Your task to perform on an android device: Open Chrome and go to settings Image 0: 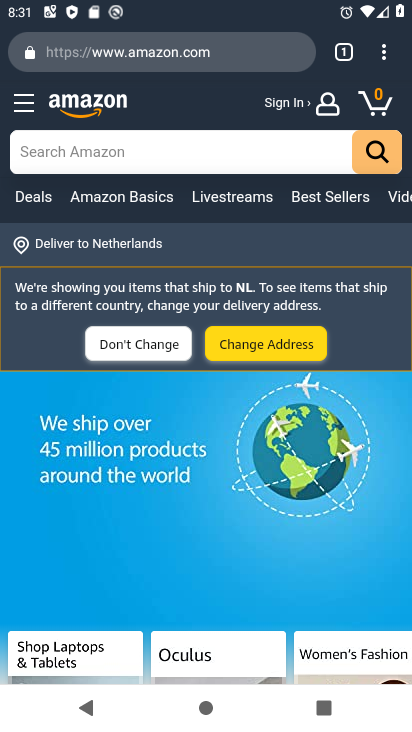
Step 0: press home button
Your task to perform on an android device: Open Chrome and go to settings Image 1: 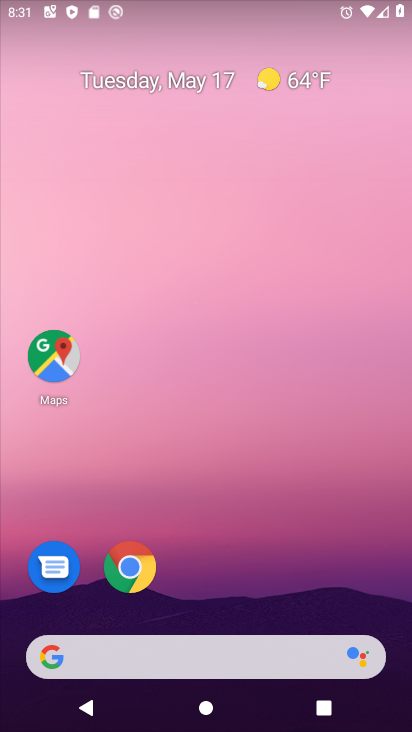
Step 1: drag from (370, 597) to (342, 112)
Your task to perform on an android device: Open Chrome and go to settings Image 2: 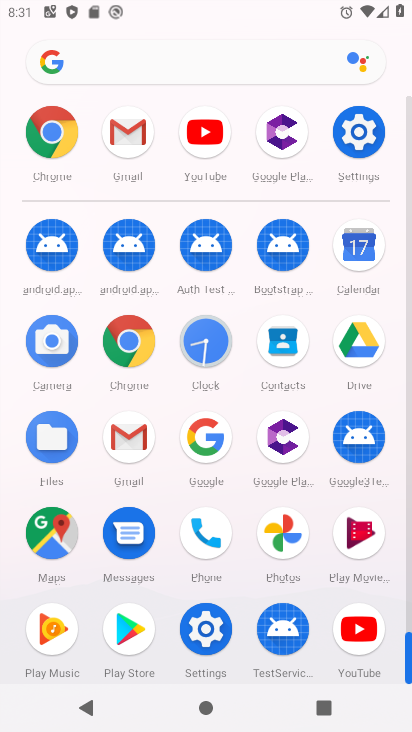
Step 2: click (31, 140)
Your task to perform on an android device: Open Chrome and go to settings Image 3: 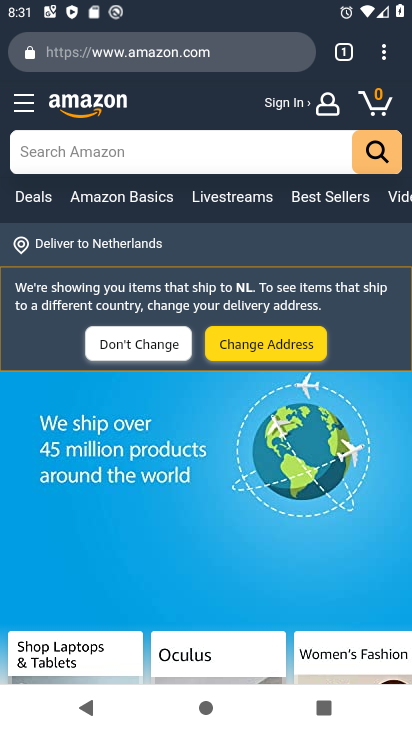
Step 3: press back button
Your task to perform on an android device: Open Chrome and go to settings Image 4: 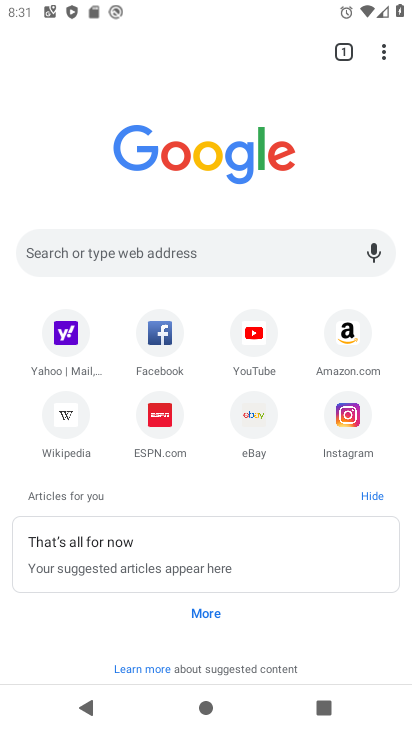
Step 4: click (384, 51)
Your task to perform on an android device: Open Chrome and go to settings Image 5: 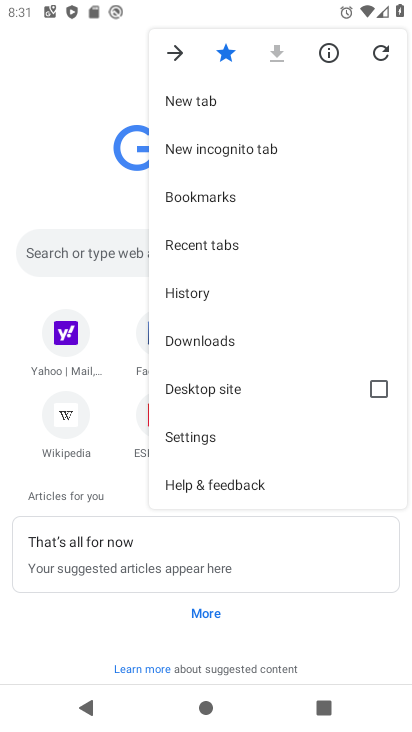
Step 5: click (225, 442)
Your task to perform on an android device: Open Chrome and go to settings Image 6: 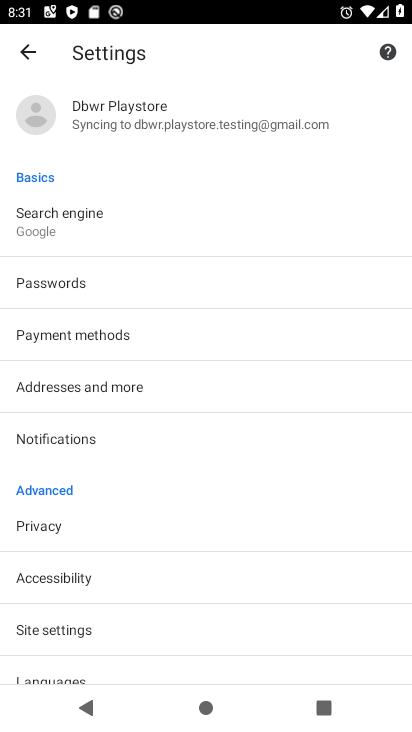
Step 6: task complete